Your task to perform on an android device: Open location settings Image 0: 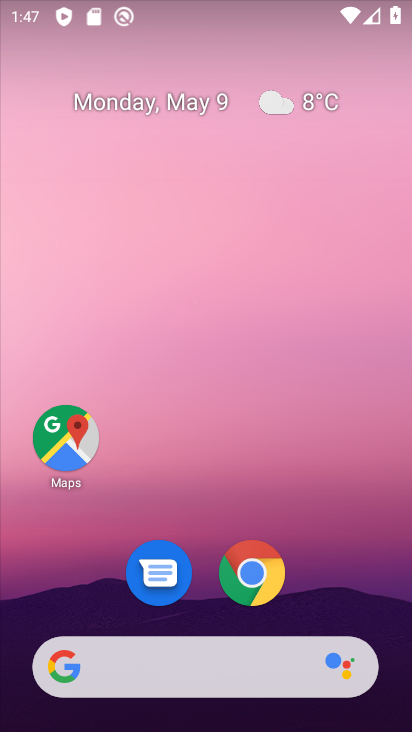
Step 0: drag from (205, 609) to (284, 98)
Your task to perform on an android device: Open location settings Image 1: 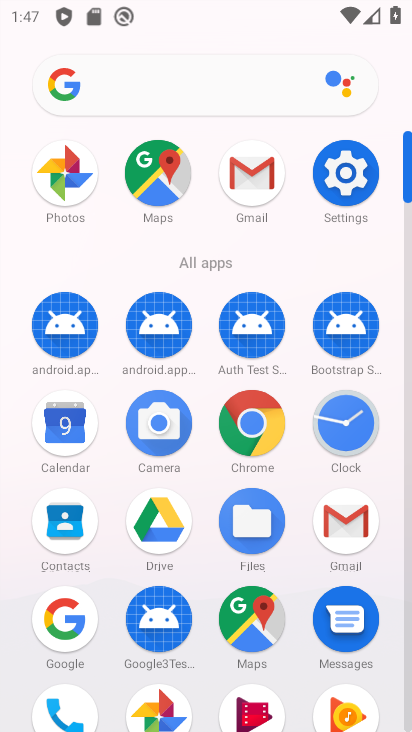
Step 1: click (353, 166)
Your task to perform on an android device: Open location settings Image 2: 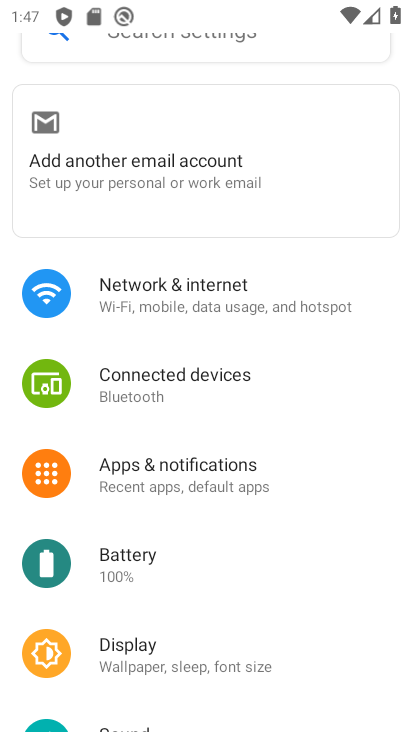
Step 2: drag from (240, 594) to (234, 22)
Your task to perform on an android device: Open location settings Image 3: 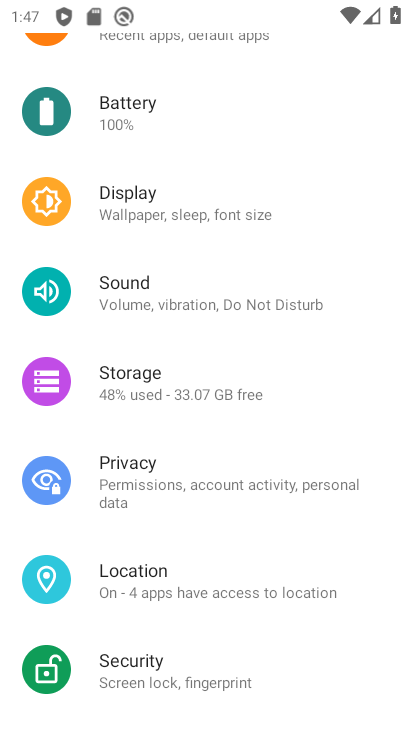
Step 3: click (128, 575)
Your task to perform on an android device: Open location settings Image 4: 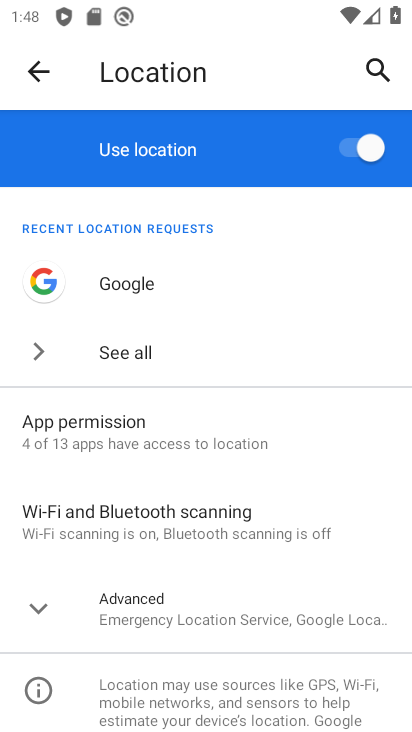
Step 4: task complete